Your task to perform on an android device: set the stopwatch Image 0: 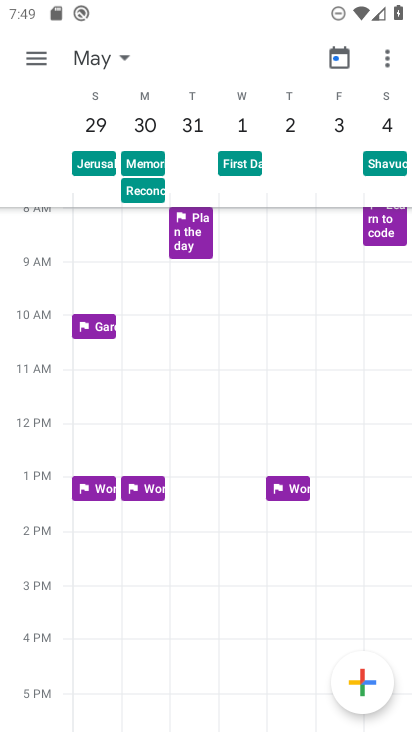
Step 0: press home button
Your task to perform on an android device: set the stopwatch Image 1: 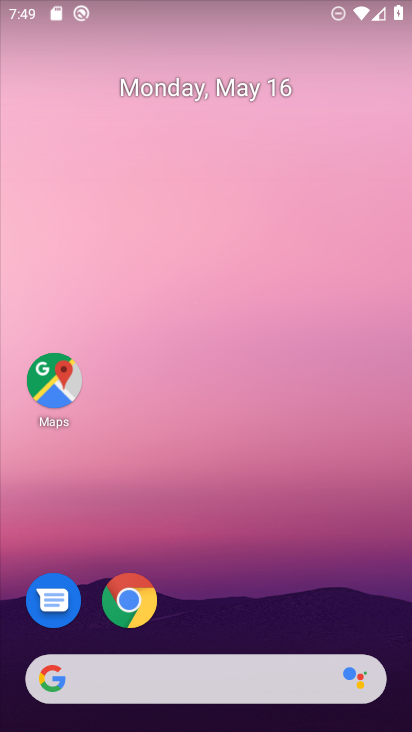
Step 1: drag from (187, 672) to (348, 179)
Your task to perform on an android device: set the stopwatch Image 2: 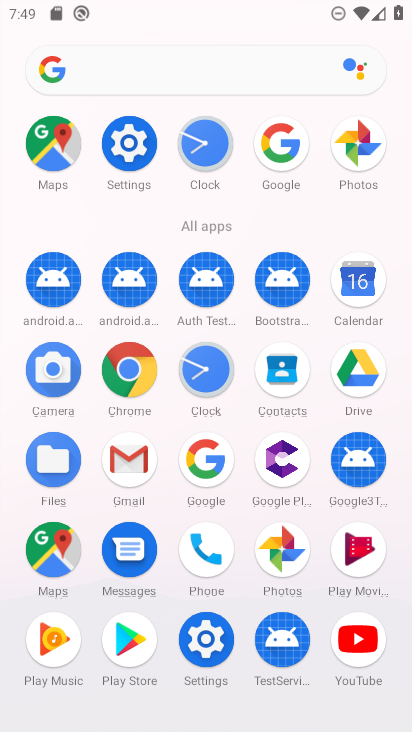
Step 2: click (206, 373)
Your task to perform on an android device: set the stopwatch Image 3: 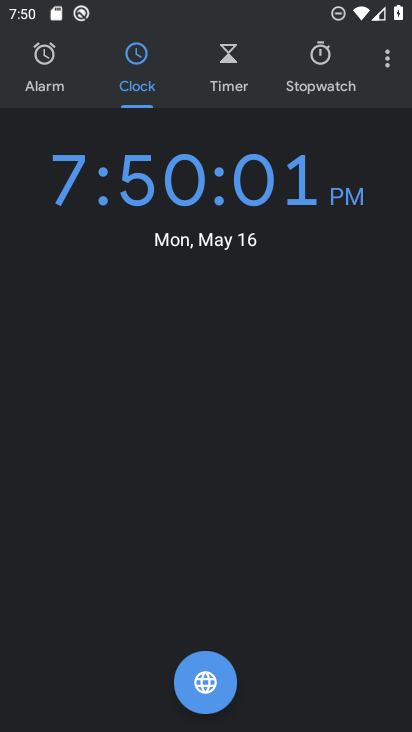
Step 3: click (323, 74)
Your task to perform on an android device: set the stopwatch Image 4: 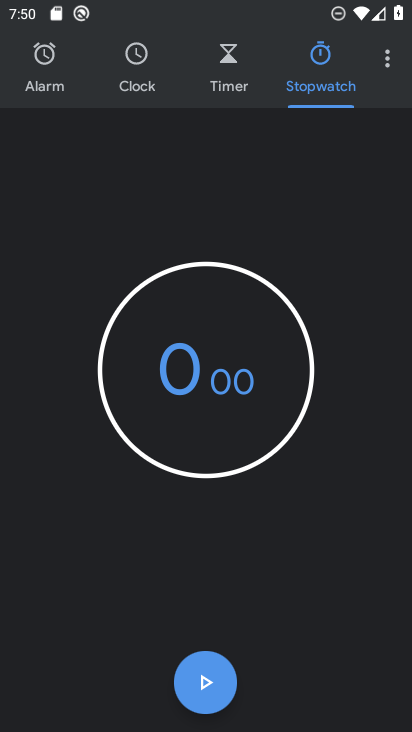
Step 4: click (195, 380)
Your task to perform on an android device: set the stopwatch Image 5: 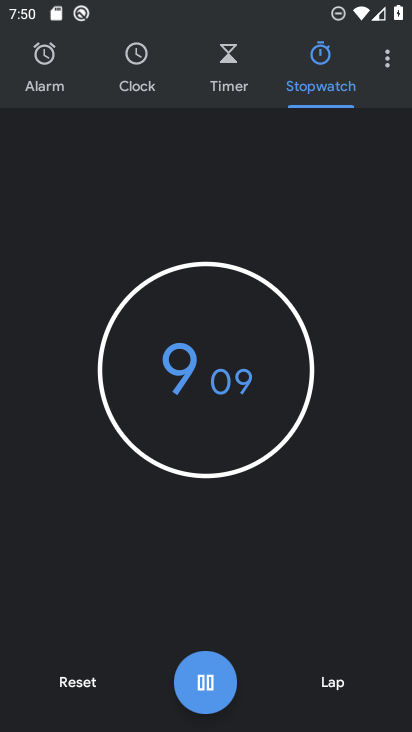
Step 5: click (201, 376)
Your task to perform on an android device: set the stopwatch Image 6: 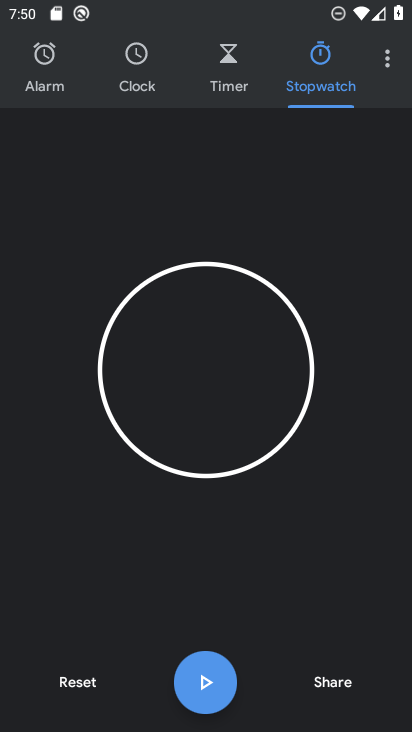
Step 6: task complete